Your task to perform on an android device: Add lg ultragear to the cart on costco.com Image 0: 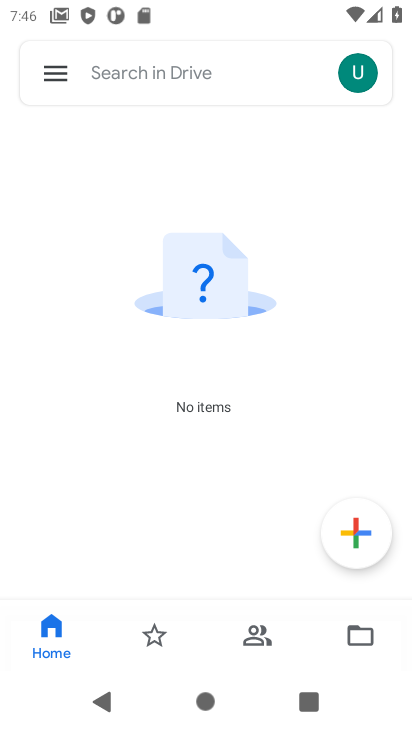
Step 0: press home button
Your task to perform on an android device: Add lg ultragear to the cart on costco.com Image 1: 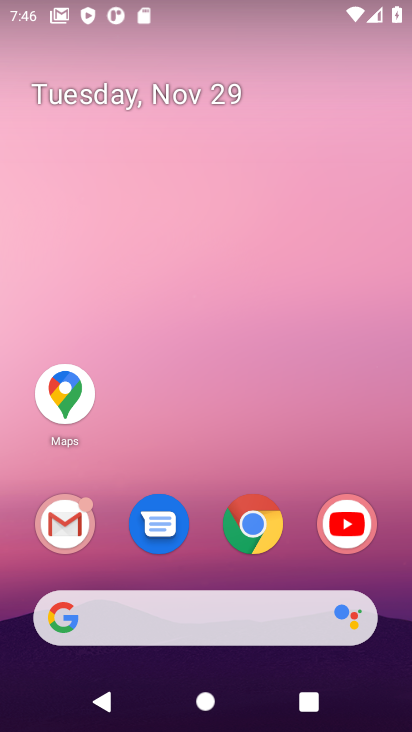
Step 1: click (255, 517)
Your task to perform on an android device: Add lg ultragear to the cart on costco.com Image 2: 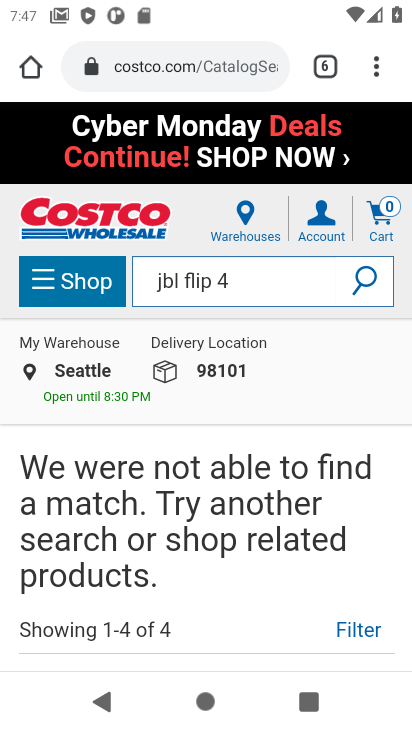
Step 2: click (231, 293)
Your task to perform on an android device: Add lg ultragear to the cart on costco.com Image 3: 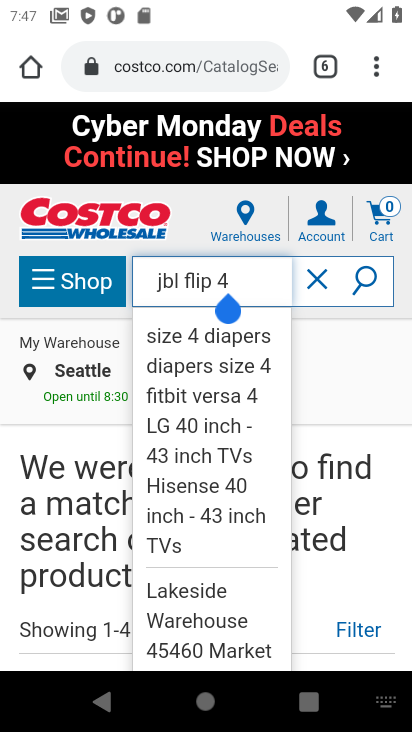
Step 3: click (311, 278)
Your task to perform on an android device: Add lg ultragear to the cart on costco.com Image 4: 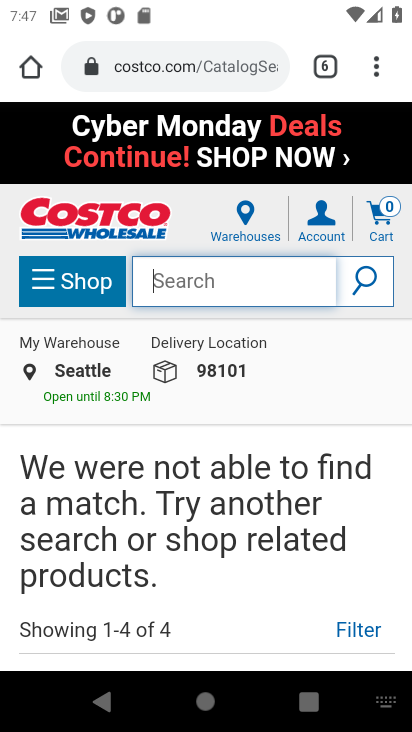
Step 4: type "lg ultragear"
Your task to perform on an android device: Add lg ultragear to the cart on costco.com Image 5: 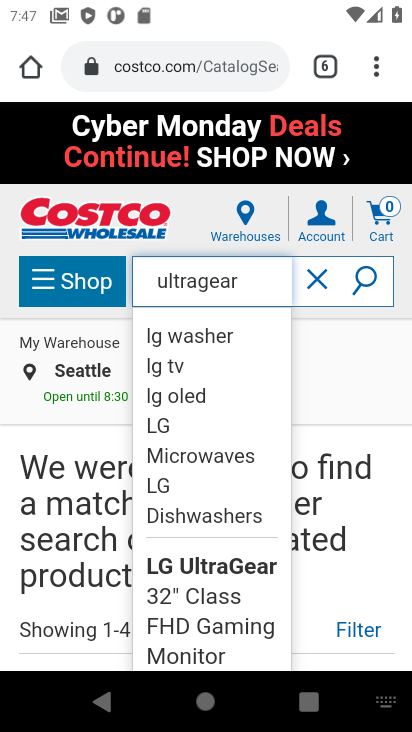
Step 5: click (366, 276)
Your task to perform on an android device: Add lg ultragear to the cart on costco.com Image 6: 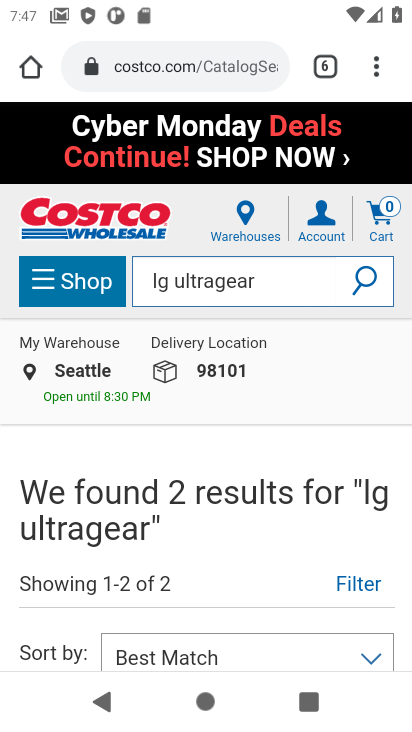
Step 6: drag from (227, 536) to (213, 233)
Your task to perform on an android device: Add lg ultragear to the cart on costco.com Image 7: 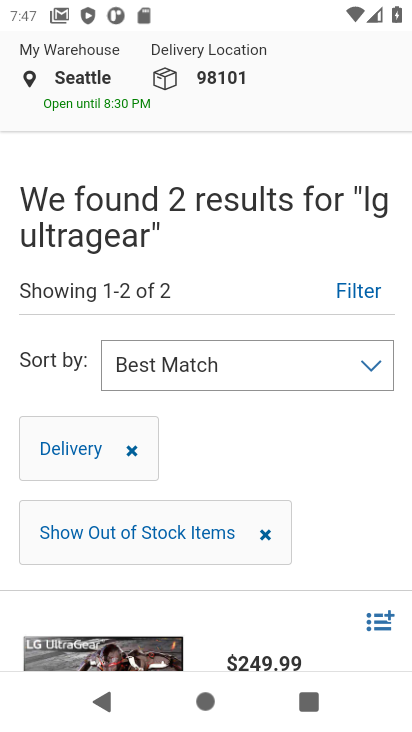
Step 7: drag from (212, 462) to (206, 135)
Your task to perform on an android device: Add lg ultragear to the cart on costco.com Image 8: 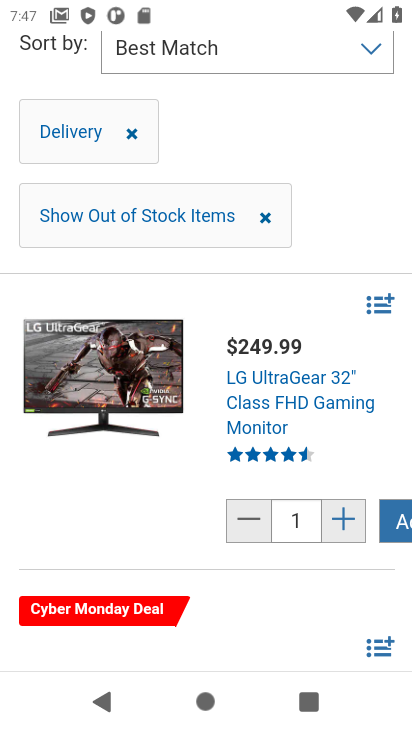
Step 8: drag from (172, 419) to (177, 341)
Your task to perform on an android device: Add lg ultragear to the cart on costco.com Image 9: 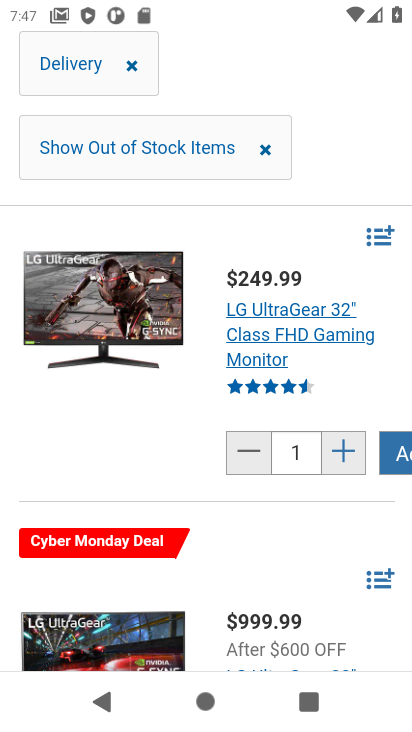
Step 9: click (403, 453)
Your task to perform on an android device: Add lg ultragear to the cart on costco.com Image 10: 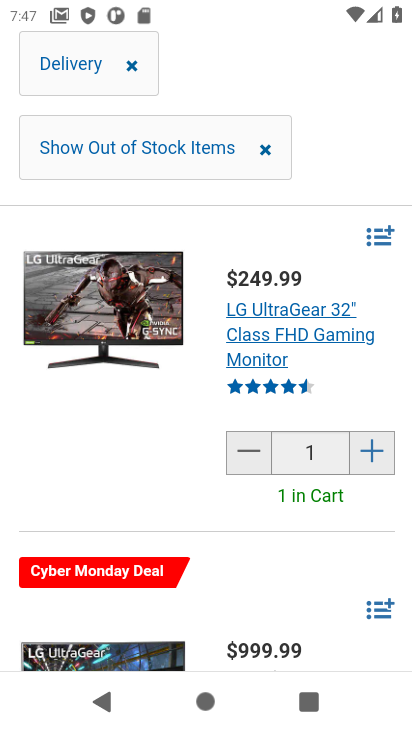
Step 10: task complete